Your task to perform on an android device: all mails in gmail Image 0: 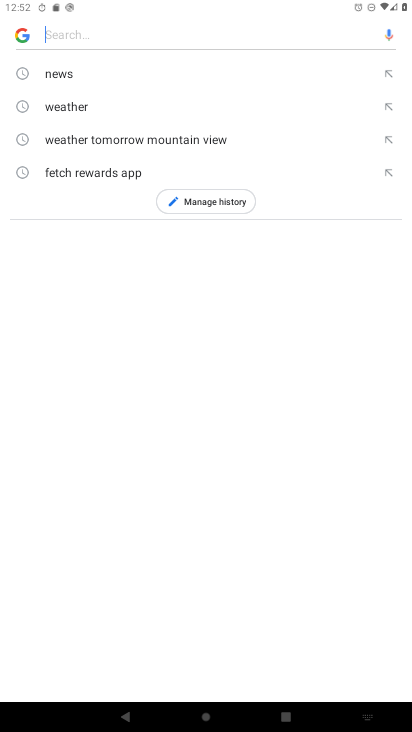
Step 0: press home button
Your task to perform on an android device: all mails in gmail Image 1: 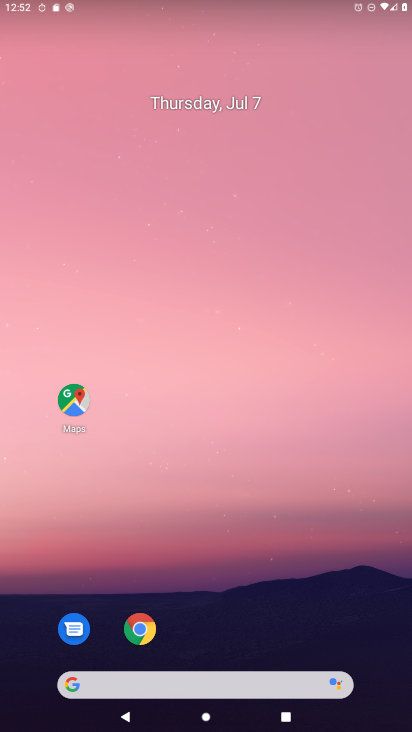
Step 1: drag from (258, 620) to (261, 149)
Your task to perform on an android device: all mails in gmail Image 2: 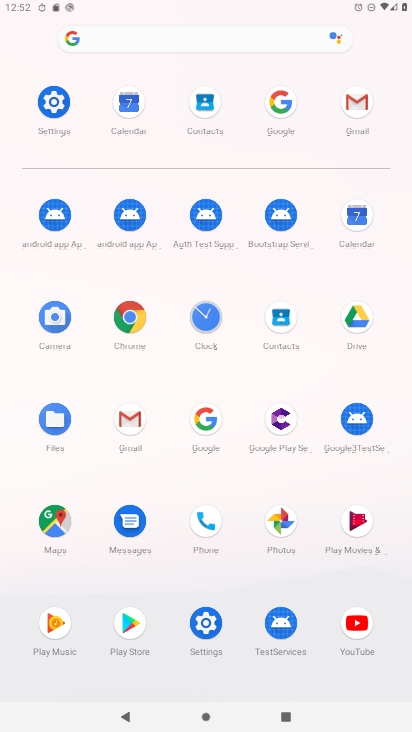
Step 2: click (346, 106)
Your task to perform on an android device: all mails in gmail Image 3: 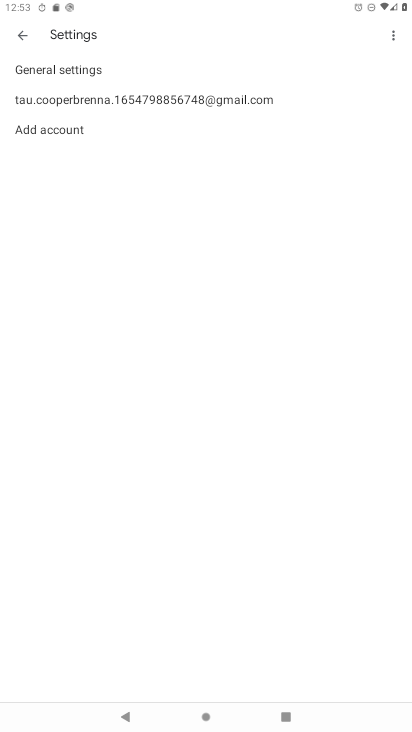
Step 3: click (16, 38)
Your task to perform on an android device: all mails in gmail Image 4: 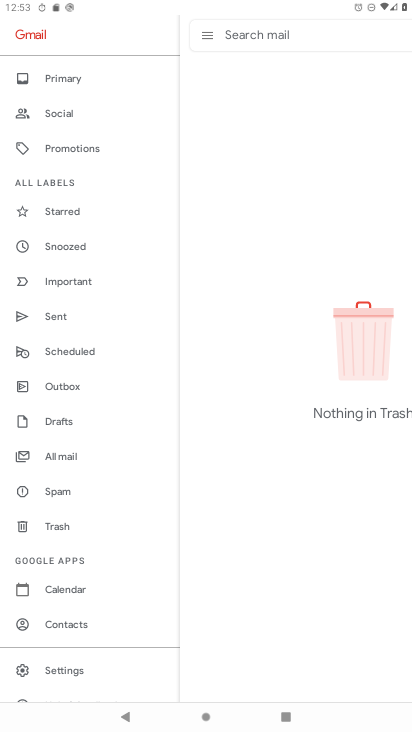
Step 4: click (78, 449)
Your task to perform on an android device: all mails in gmail Image 5: 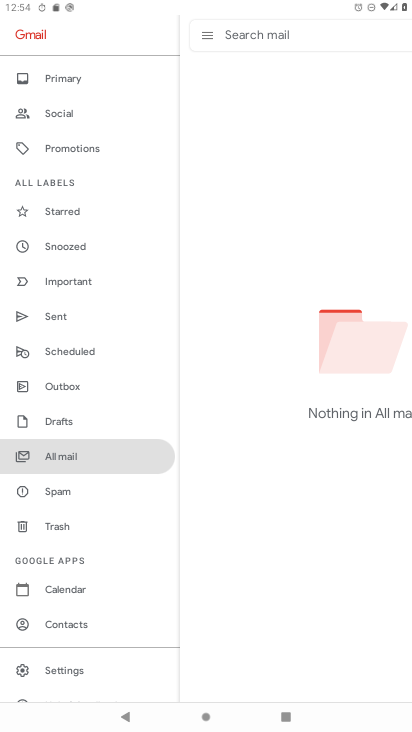
Step 5: task complete